Your task to perform on an android device: turn on location history Image 0: 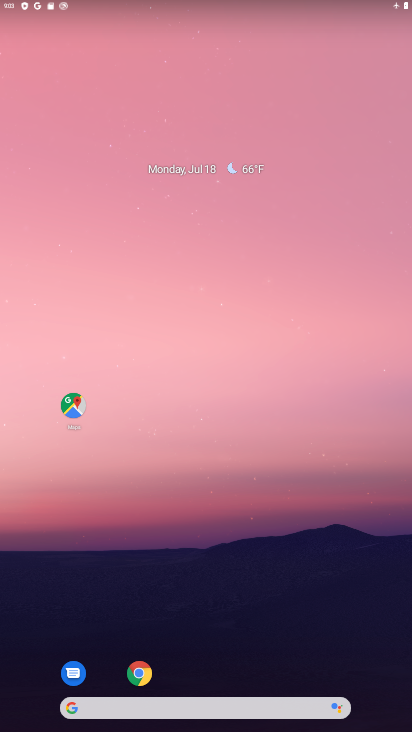
Step 0: drag from (316, 693) to (319, 77)
Your task to perform on an android device: turn on location history Image 1: 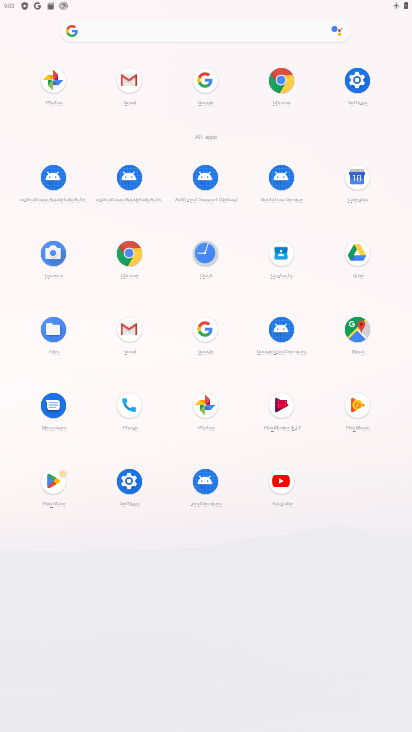
Step 1: click (352, 78)
Your task to perform on an android device: turn on location history Image 2: 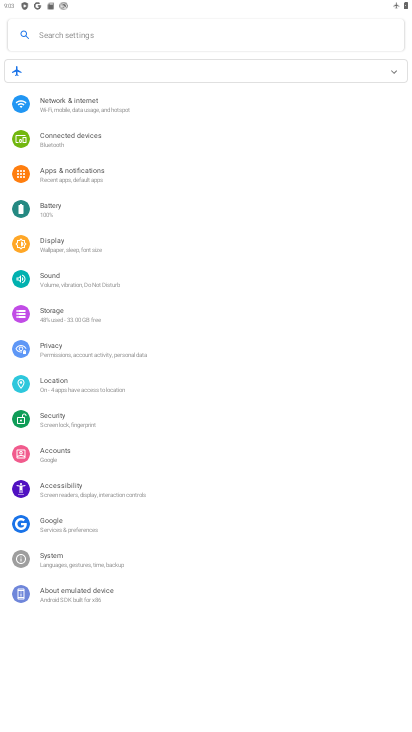
Step 2: click (71, 388)
Your task to perform on an android device: turn on location history Image 3: 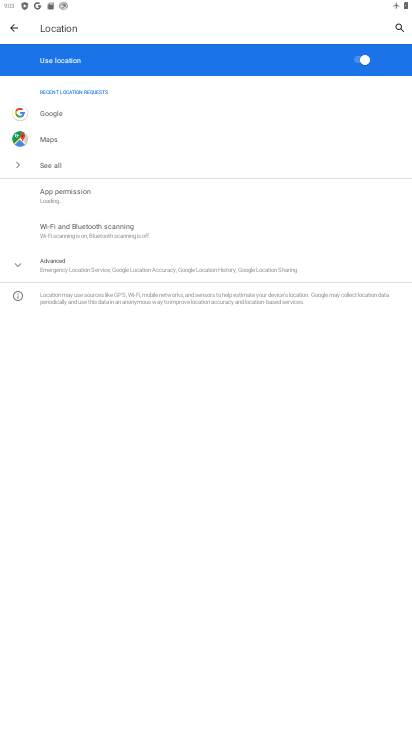
Step 3: click (102, 260)
Your task to perform on an android device: turn on location history Image 4: 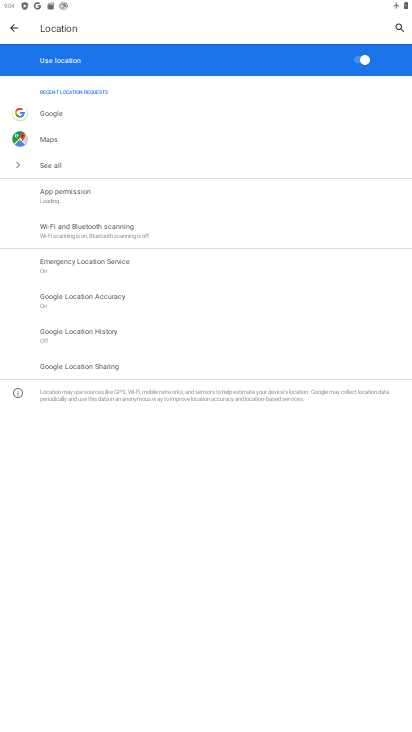
Step 4: click (125, 338)
Your task to perform on an android device: turn on location history Image 5: 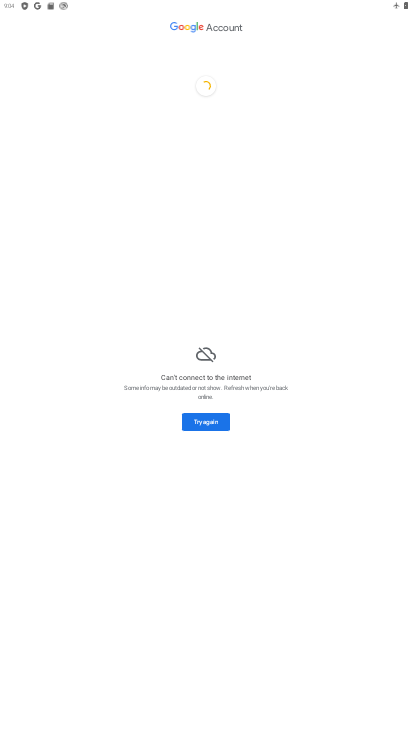
Step 5: task complete